Your task to perform on an android device: toggle priority inbox in the gmail app Image 0: 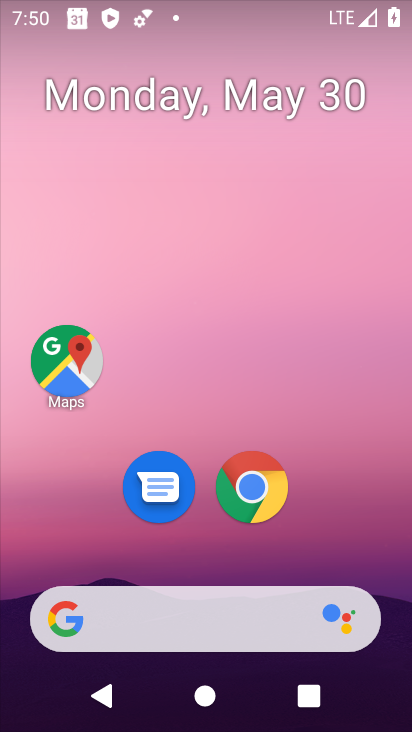
Step 0: drag from (386, 666) to (319, 12)
Your task to perform on an android device: toggle priority inbox in the gmail app Image 1: 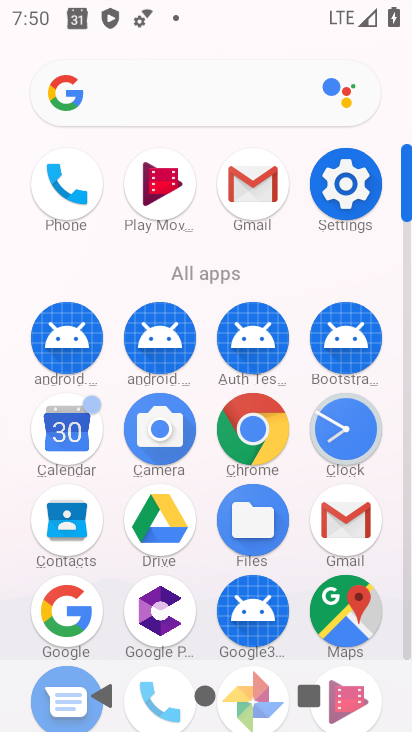
Step 1: click (321, 519)
Your task to perform on an android device: toggle priority inbox in the gmail app Image 2: 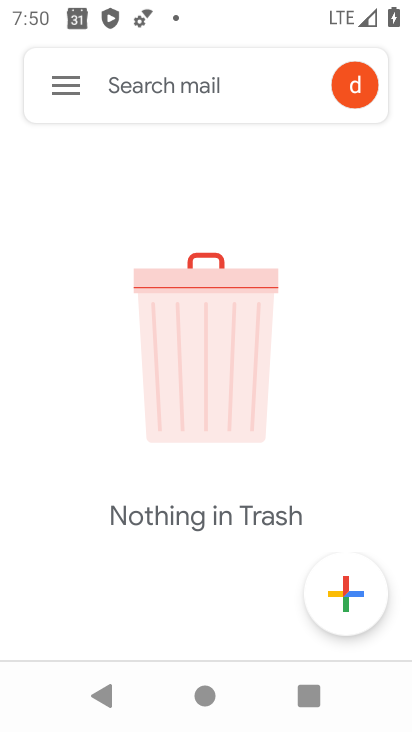
Step 2: click (69, 83)
Your task to perform on an android device: toggle priority inbox in the gmail app Image 3: 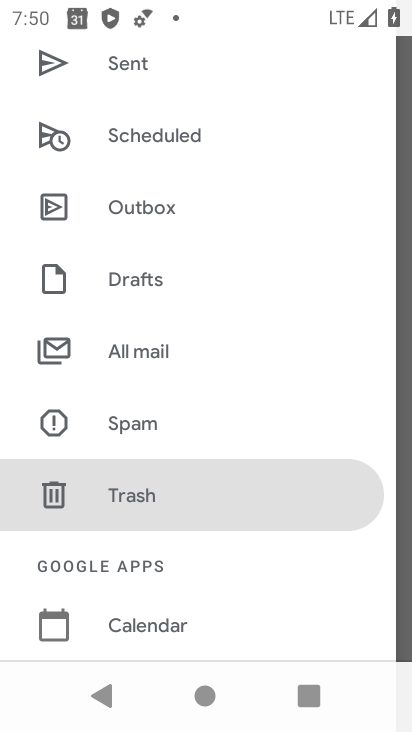
Step 3: drag from (279, 611) to (278, 144)
Your task to perform on an android device: toggle priority inbox in the gmail app Image 4: 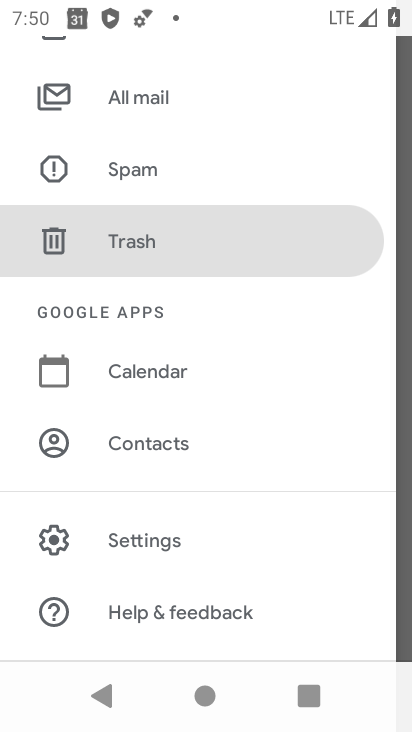
Step 4: click (121, 544)
Your task to perform on an android device: toggle priority inbox in the gmail app Image 5: 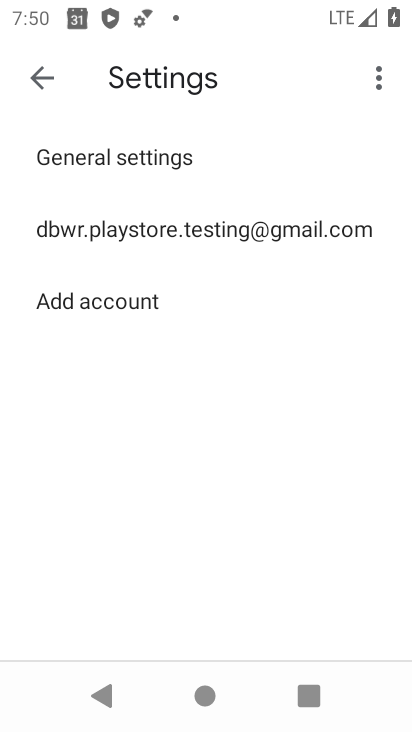
Step 5: click (90, 227)
Your task to perform on an android device: toggle priority inbox in the gmail app Image 6: 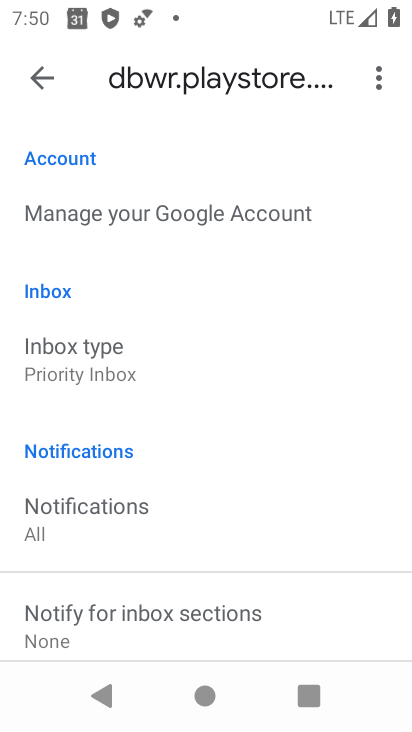
Step 6: click (80, 359)
Your task to perform on an android device: toggle priority inbox in the gmail app Image 7: 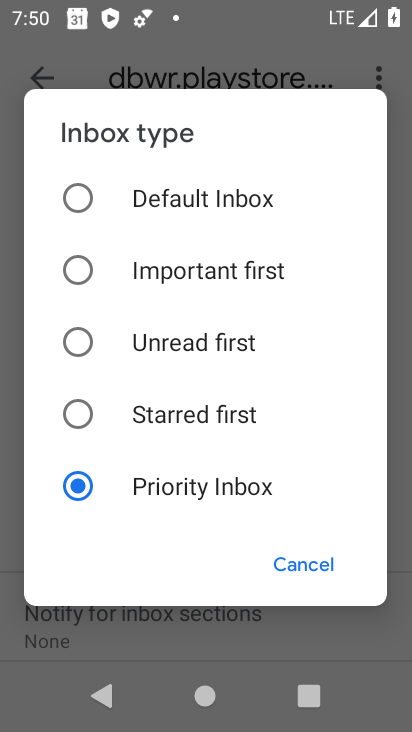
Step 7: click (86, 196)
Your task to perform on an android device: toggle priority inbox in the gmail app Image 8: 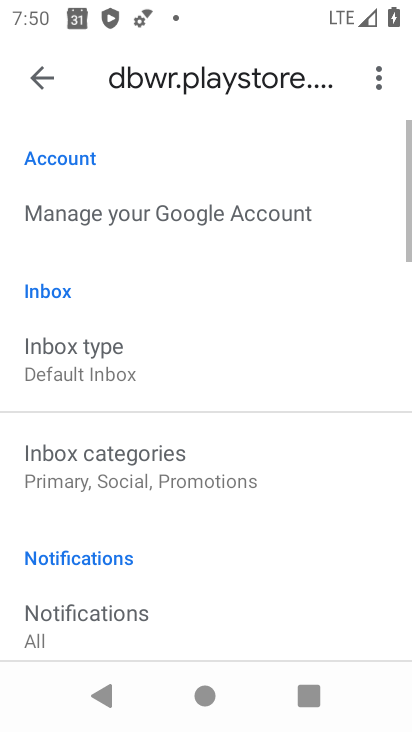
Step 8: task complete